Your task to perform on an android device: open a bookmark in the chrome app Image 0: 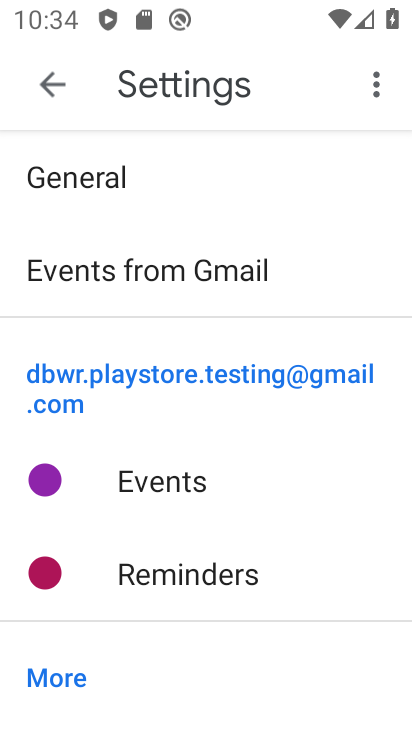
Step 0: press home button
Your task to perform on an android device: open a bookmark in the chrome app Image 1: 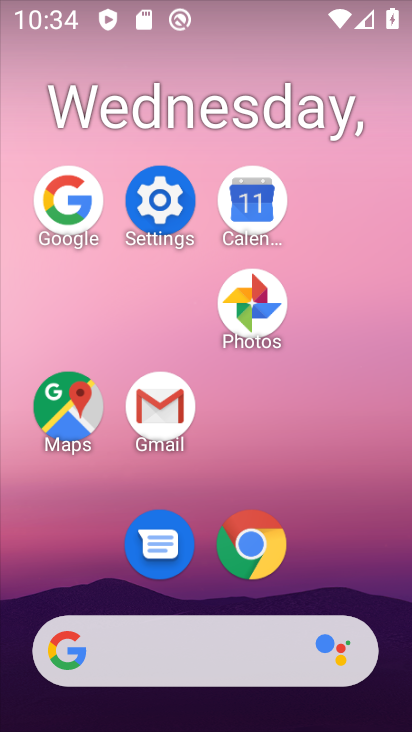
Step 1: click (251, 552)
Your task to perform on an android device: open a bookmark in the chrome app Image 2: 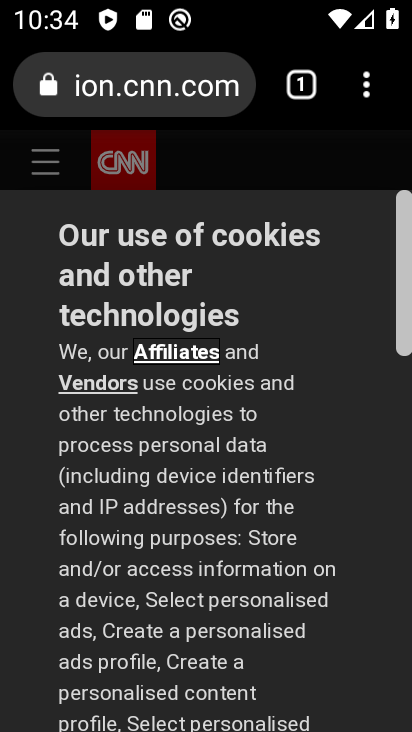
Step 2: click (380, 95)
Your task to perform on an android device: open a bookmark in the chrome app Image 3: 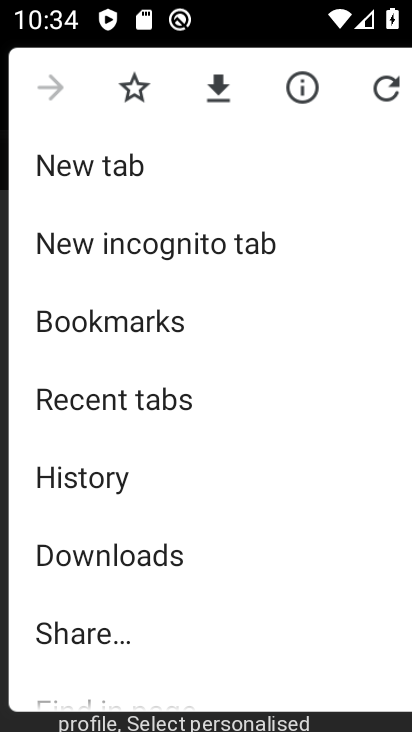
Step 3: click (172, 296)
Your task to perform on an android device: open a bookmark in the chrome app Image 4: 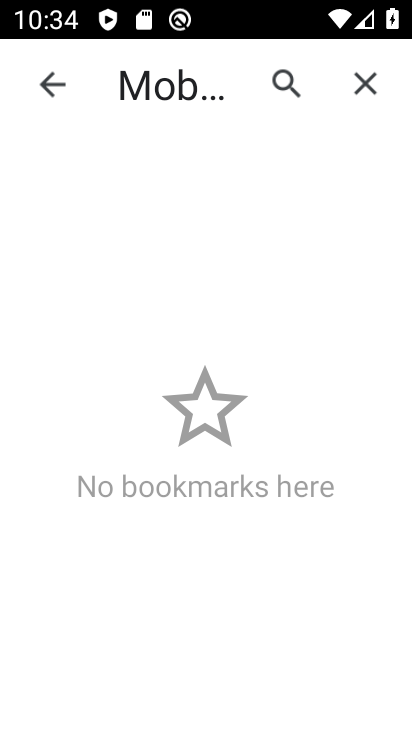
Step 4: task complete